Your task to perform on an android device: turn off notifications settings in the gmail app Image 0: 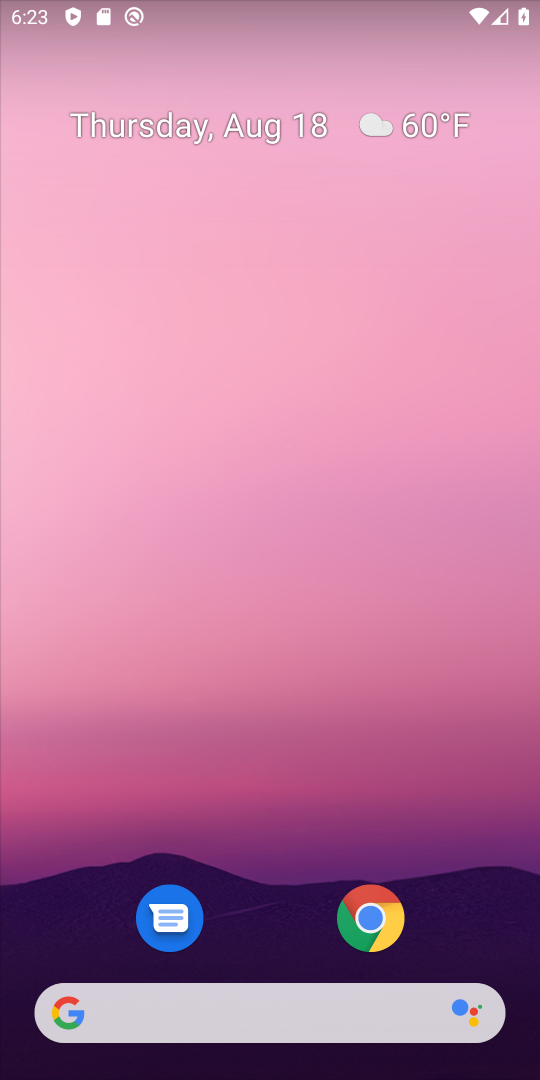
Step 0: press home button
Your task to perform on an android device: turn off notifications settings in the gmail app Image 1: 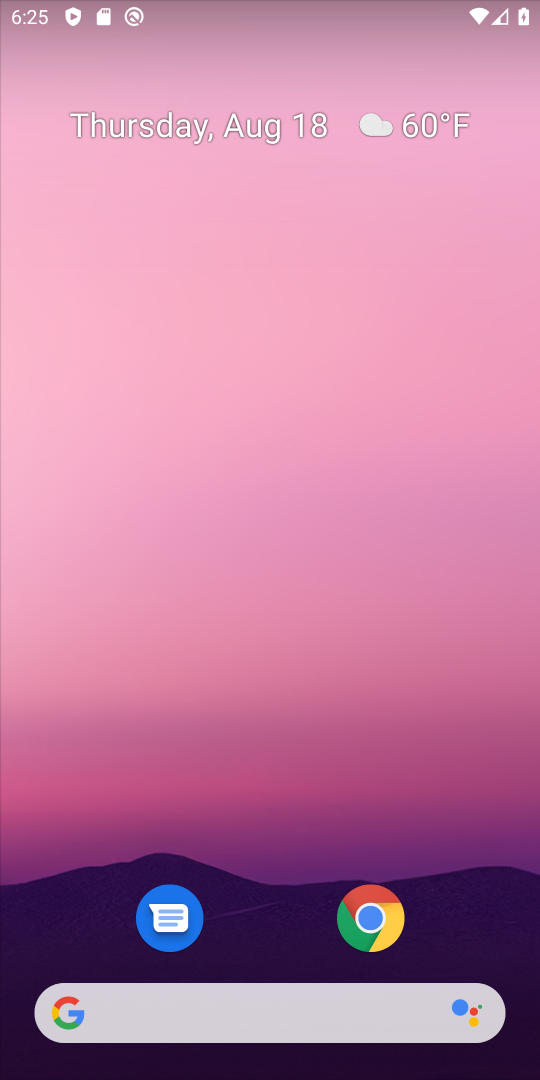
Step 1: drag from (327, 409) to (343, 82)
Your task to perform on an android device: turn off notifications settings in the gmail app Image 2: 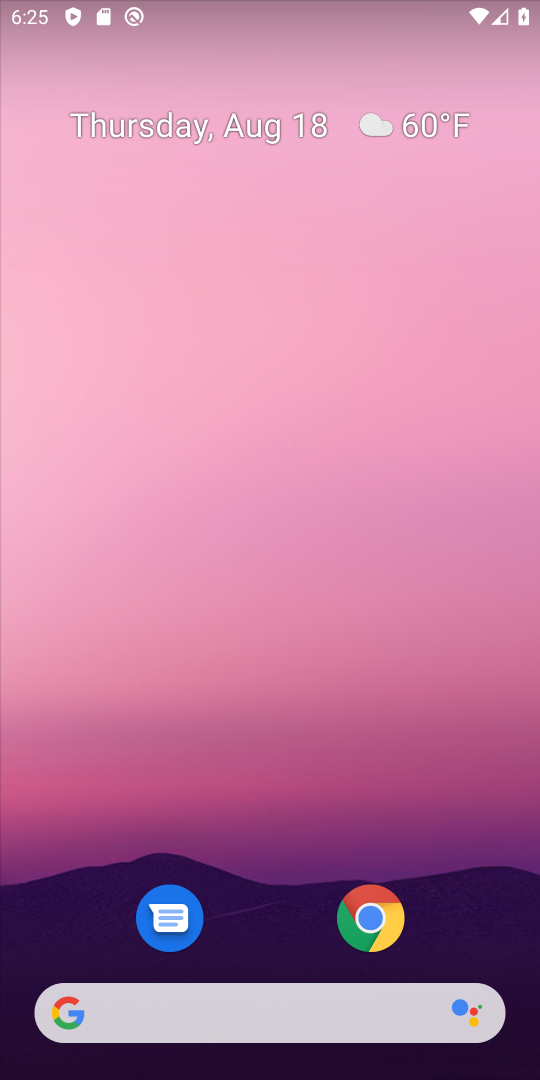
Step 2: drag from (297, 850) to (336, 135)
Your task to perform on an android device: turn off notifications settings in the gmail app Image 3: 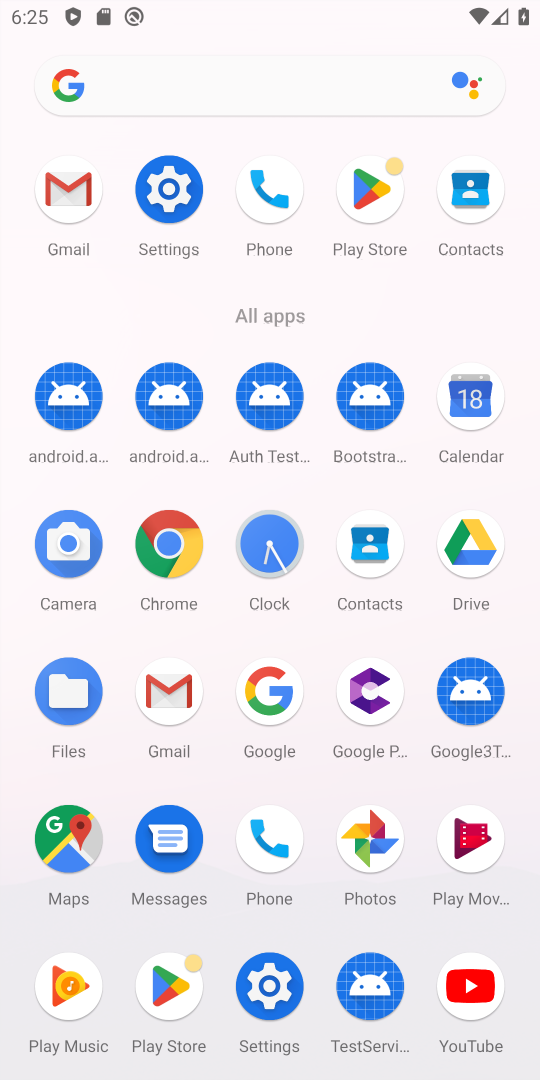
Step 3: click (63, 211)
Your task to perform on an android device: turn off notifications settings in the gmail app Image 4: 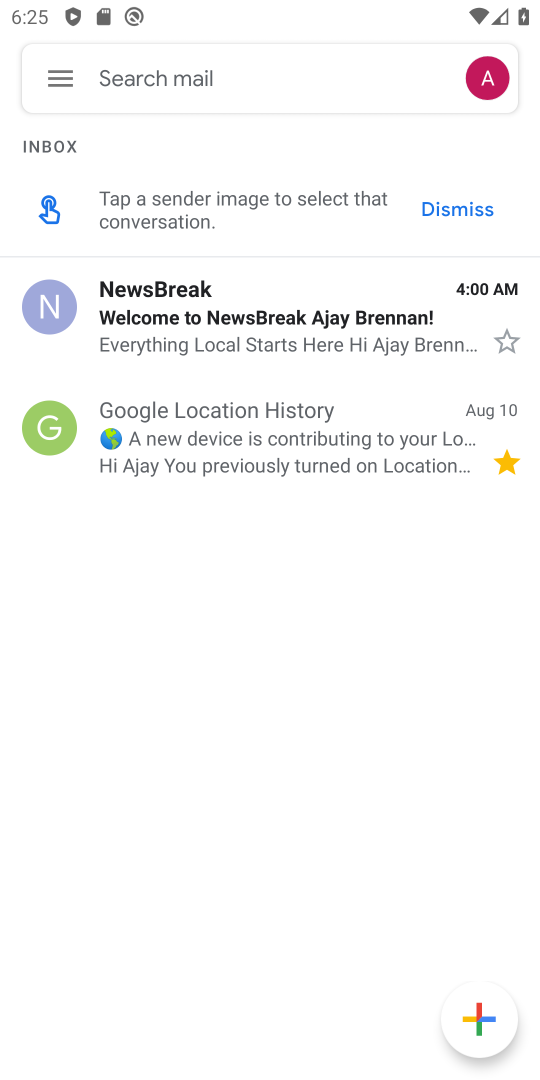
Step 4: click (44, 88)
Your task to perform on an android device: turn off notifications settings in the gmail app Image 5: 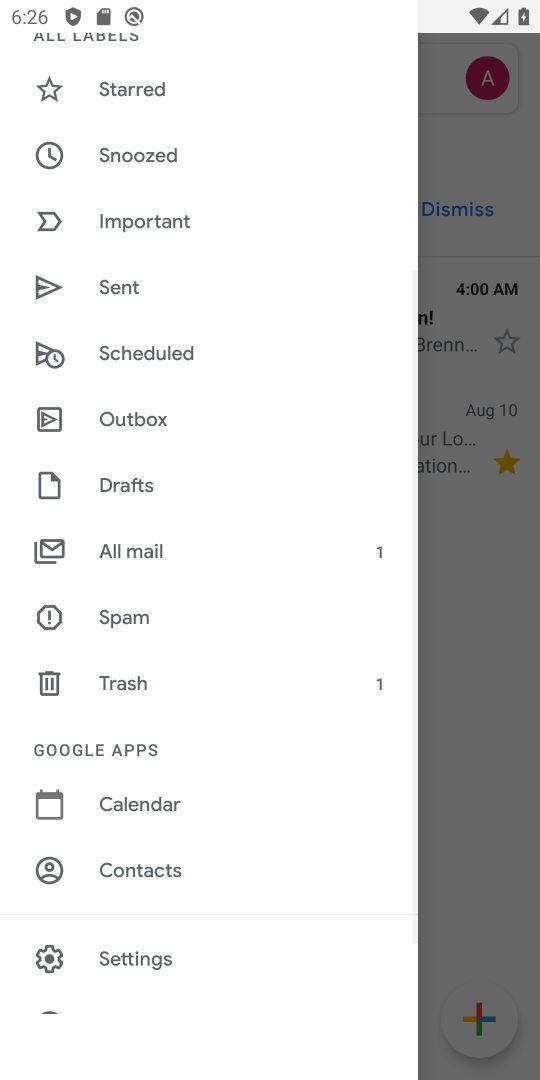
Step 5: click (126, 959)
Your task to perform on an android device: turn off notifications settings in the gmail app Image 6: 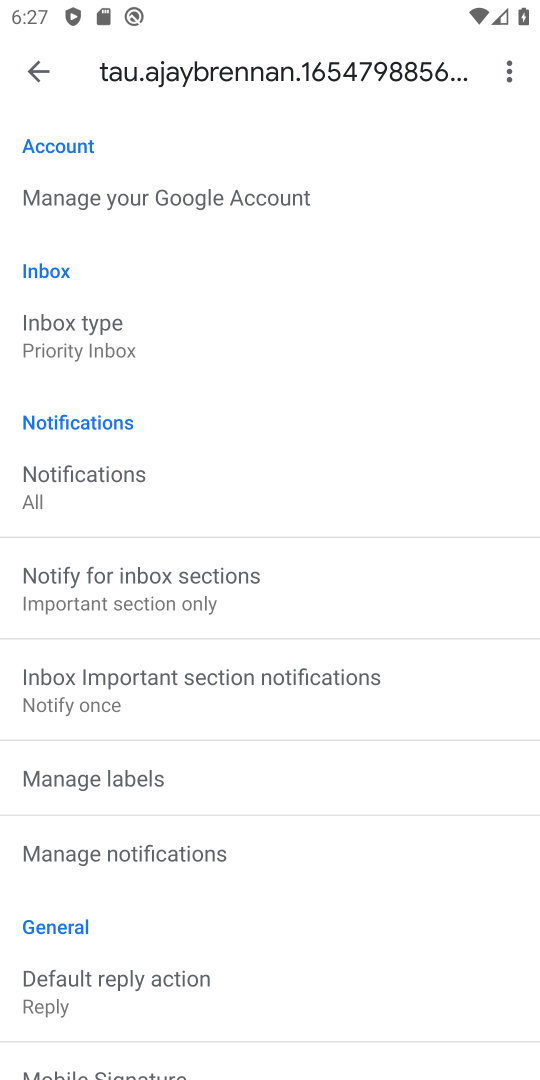
Step 6: click (158, 851)
Your task to perform on an android device: turn off notifications settings in the gmail app Image 7: 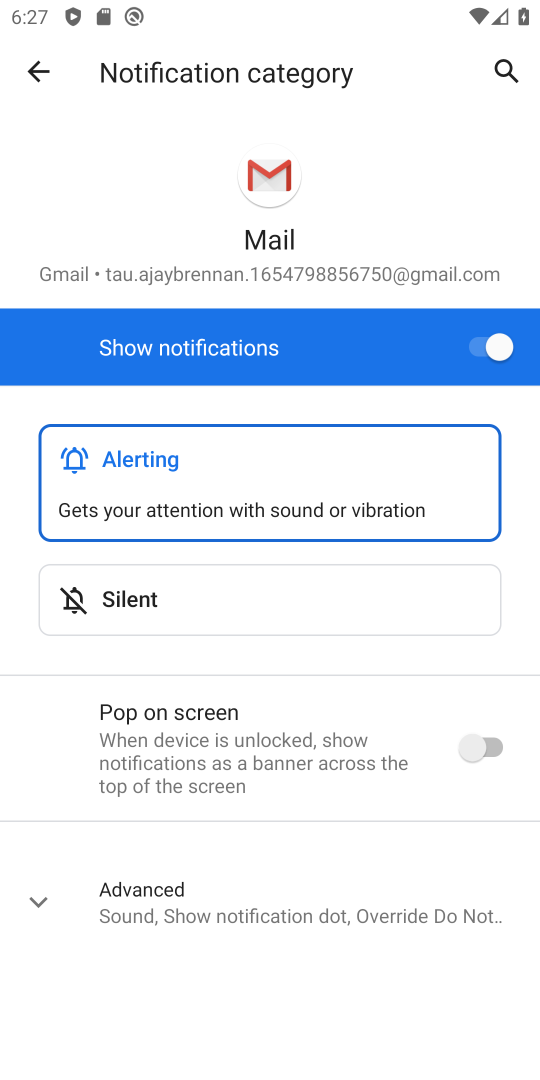
Step 7: click (497, 348)
Your task to perform on an android device: turn off notifications settings in the gmail app Image 8: 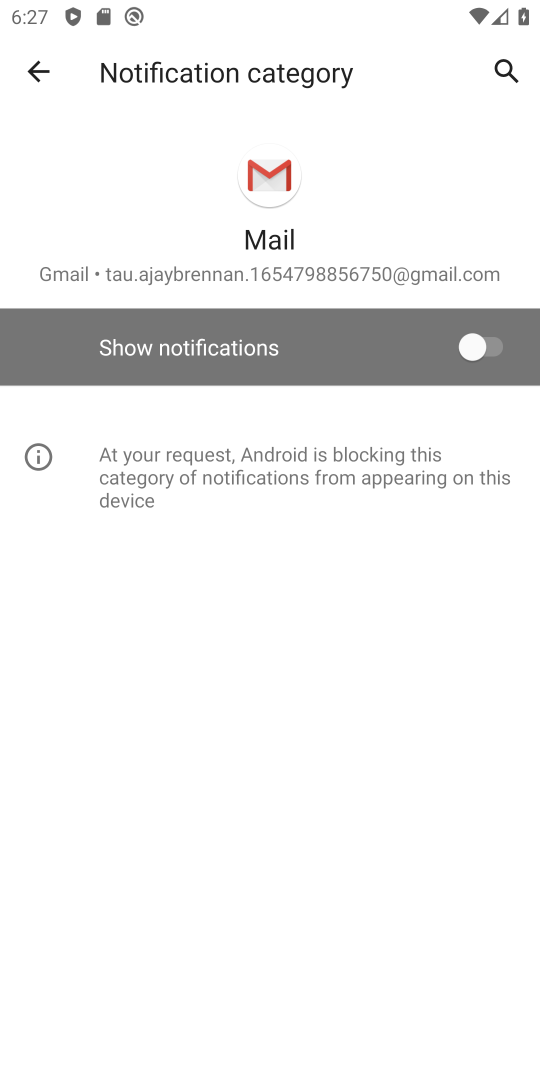
Step 8: task complete